Your task to perform on an android device: manage bookmarks in the chrome app Image 0: 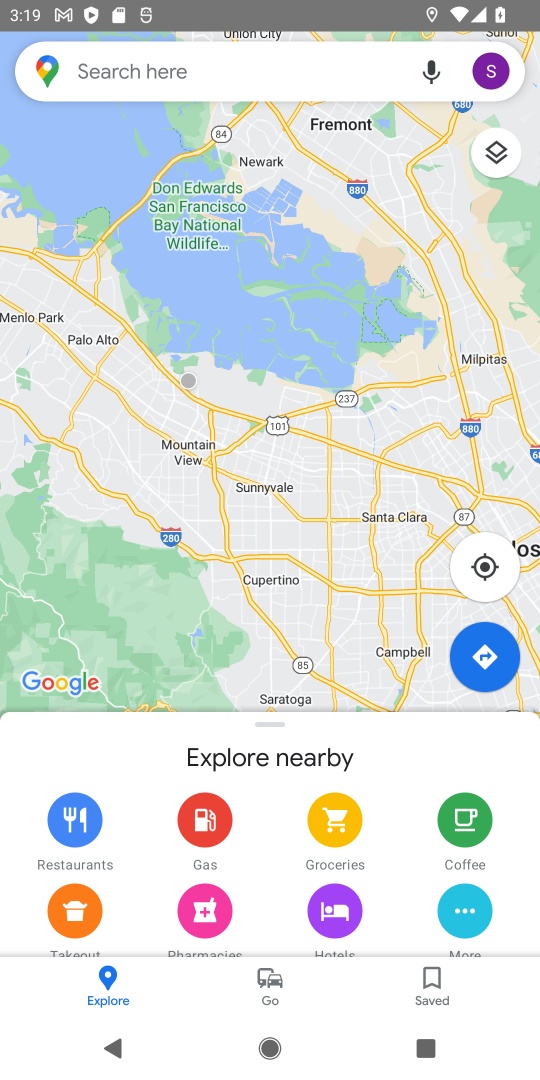
Step 0: press home button
Your task to perform on an android device: manage bookmarks in the chrome app Image 1: 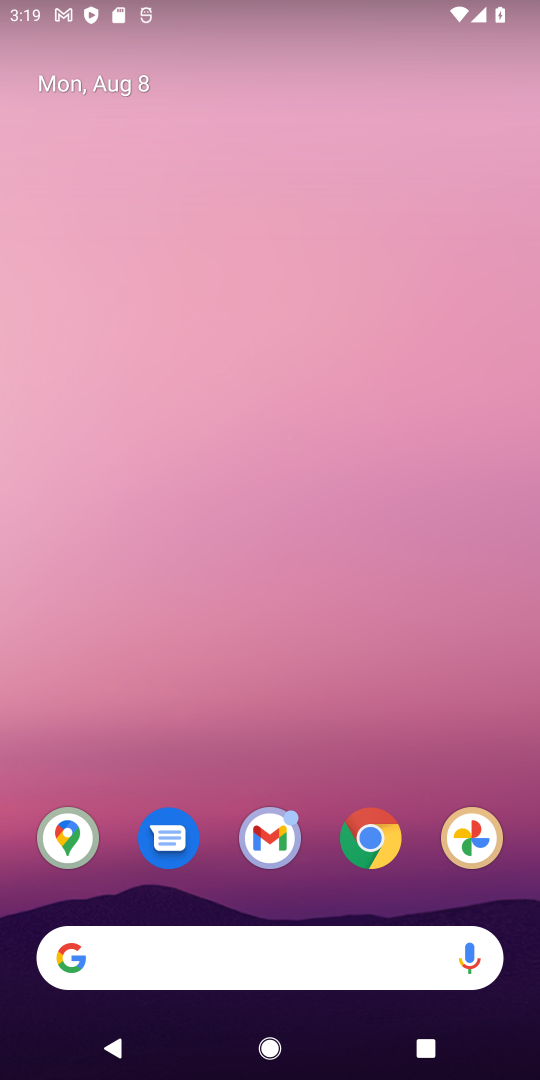
Step 1: click (371, 840)
Your task to perform on an android device: manage bookmarks in the chrome app Image 2: 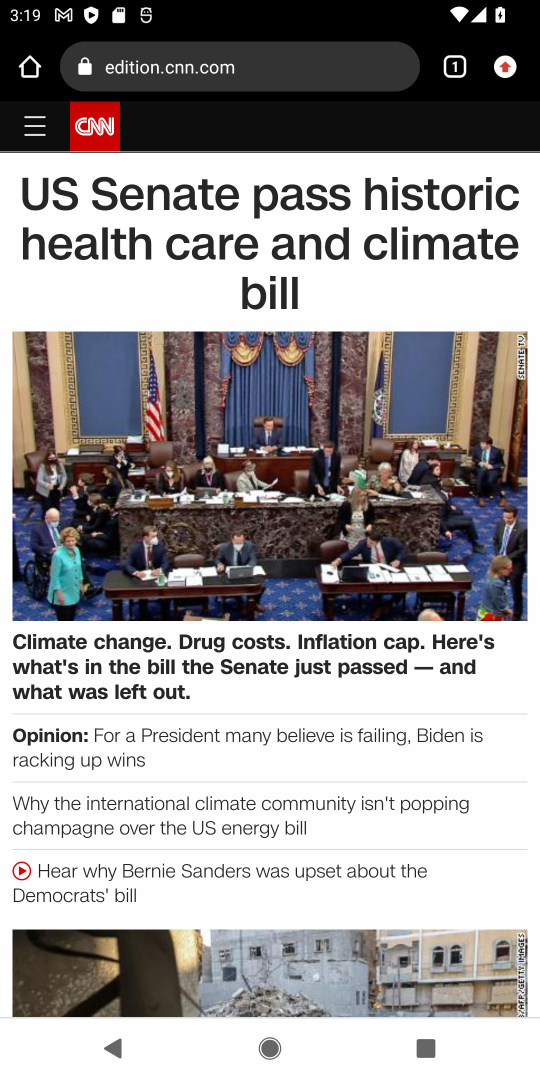
Step 2: click (507, 69)
Your task to perform on an android device: manage bookmarks in the chrome app Image 3: 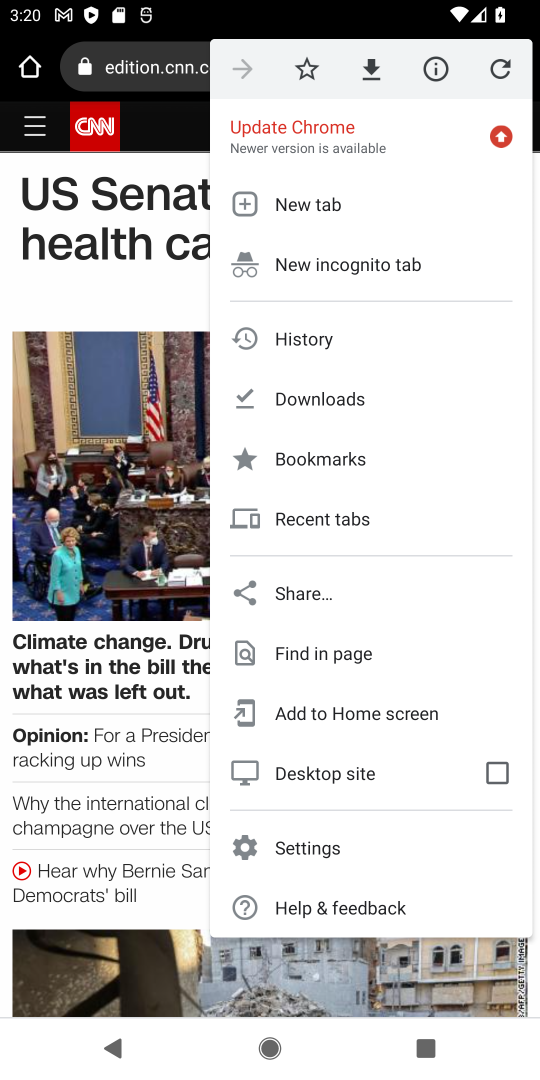
Step 3: click (320, 454)
Your task to perform on an android device: manage bookmarks in the chrome app Image 4: 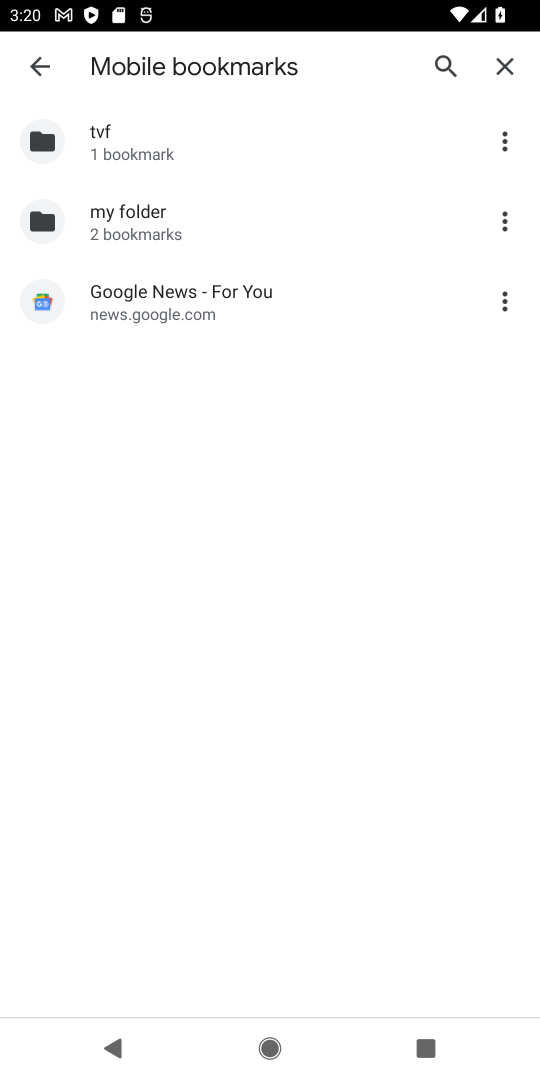
Step 4: click (502, 136)
Your task to perform on an android device: manage bookmarks in the chrome app Image 5: 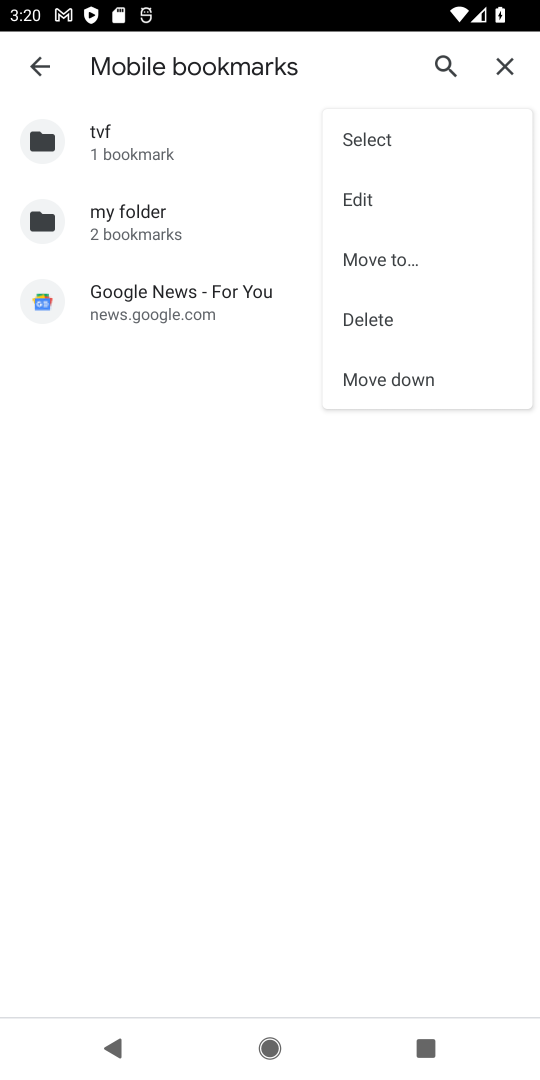
Step 5: click (372, 199)
Your task to perform on an android device: manage bookmarks in the chrome app Image 6: 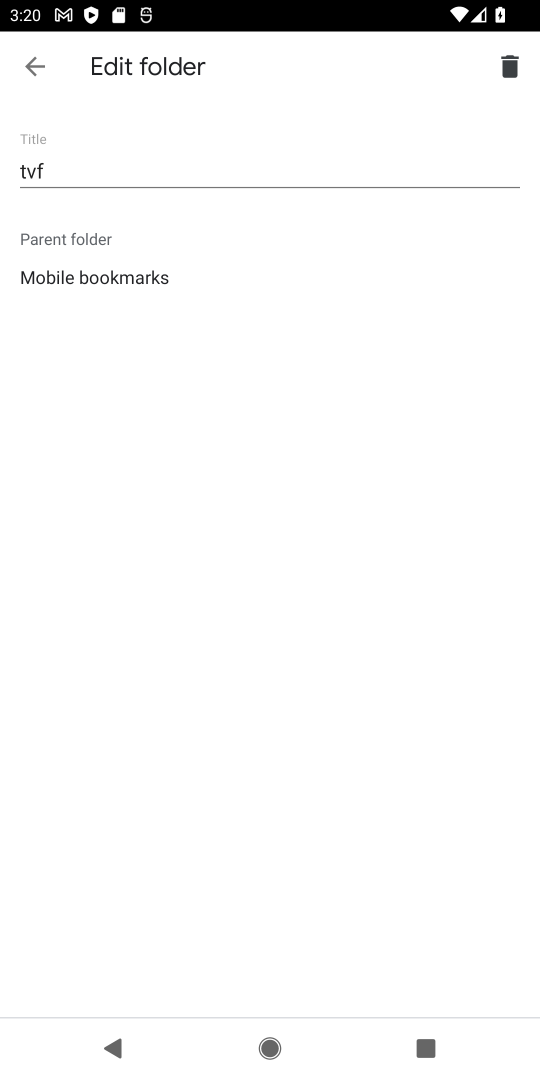
Step 6: click (511, 68)
Your task to perform on an android device: manage bookmarks in the chrome app Image 7: 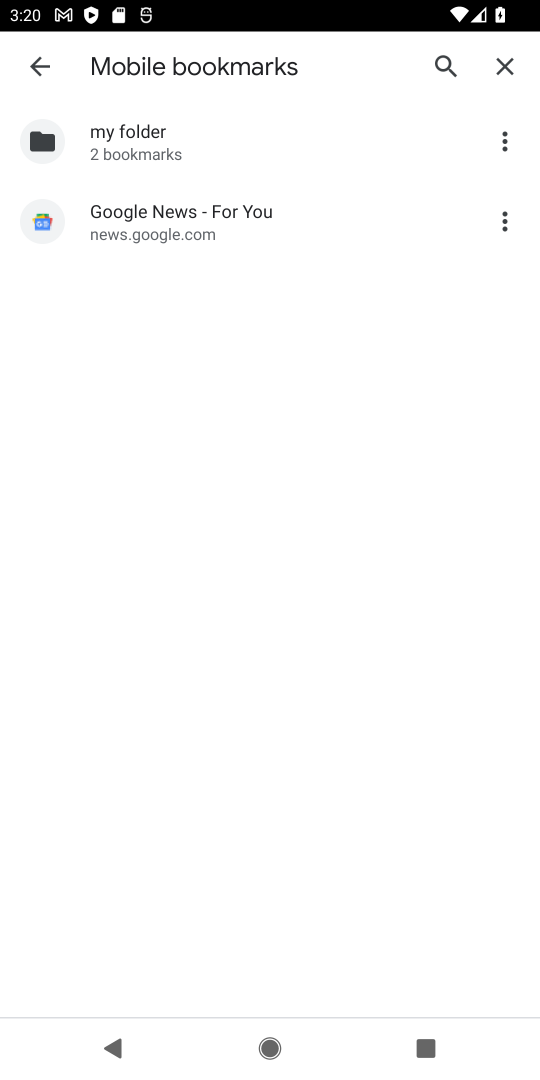
Step 7: task complete